Your task to perform on an android device: Search for "asus rog" on amazon.com, select the first entry, and add it to the cart. Image 0: 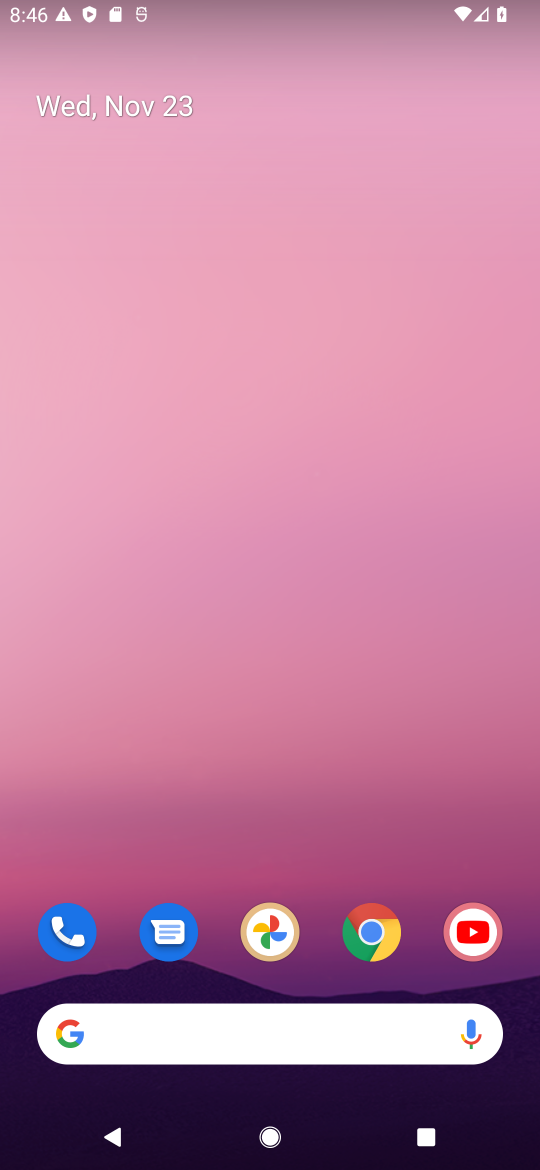
Step 0: click (377, 930)
Your task to perform on an android device: Search for "asus rog" on amazon.com, select the first entry, and add it to the cart. Image 1: 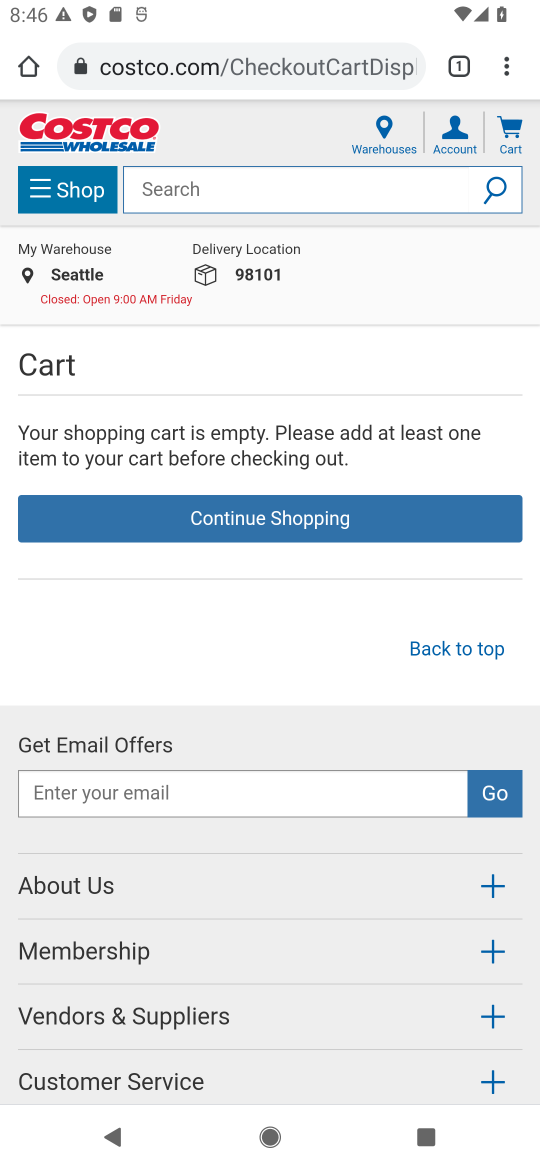
Step 1: click (236, 66)
Your task to perform on an android device: Search for "asus rog" on amazon.com, select the first entry, and add it to the cart. Image 2: 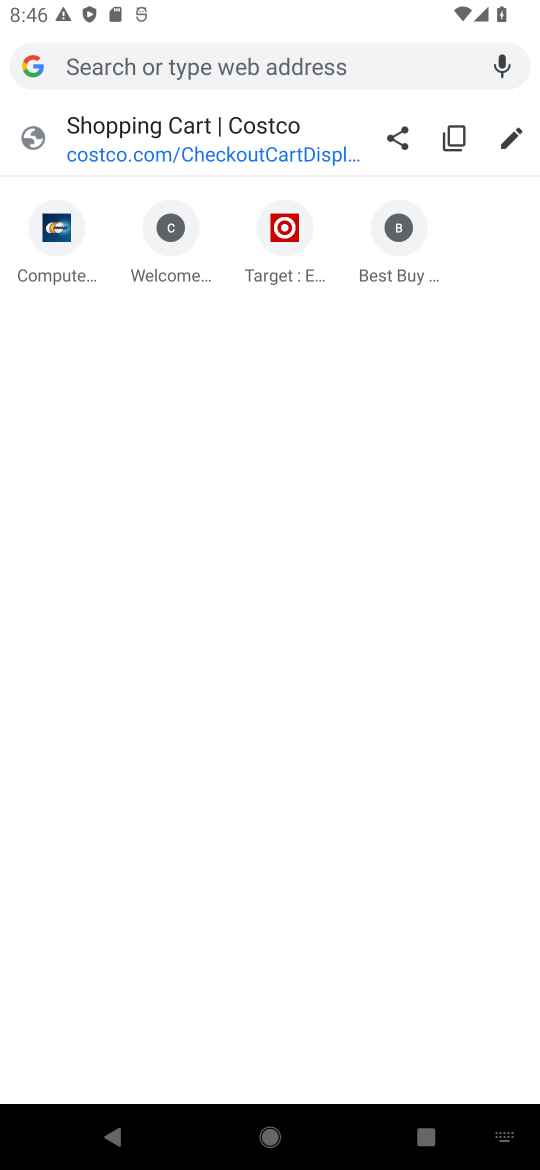
Step 2: type "amazon.com"
Your task to perform on an android device: Search for "asus rog" on amazon.com, select the first entry, and add it to the cart. Image 3: 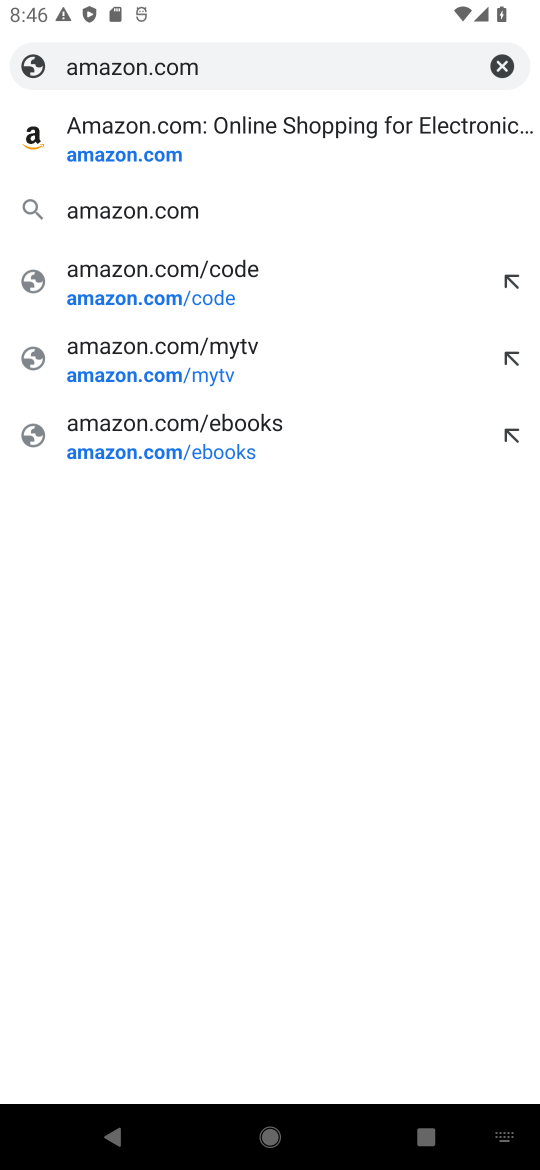
Step 3: click (232, 143)
Your task to perform on an android device: Search for "asus rog" on amazon.com, select the first entry, and add it to the cart. Image 4: 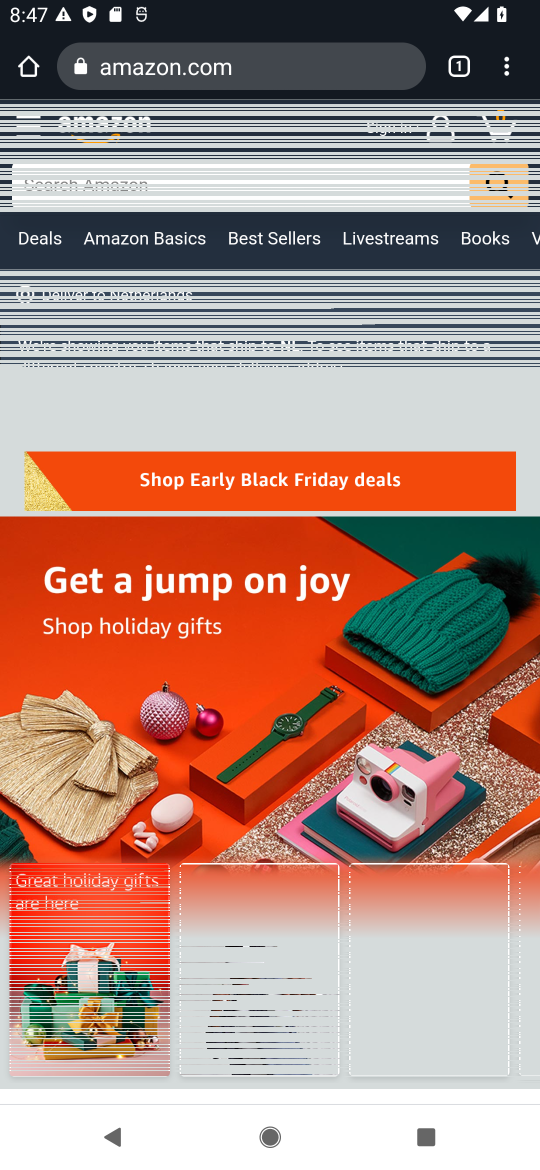
Step 4: click (176, 184)
Your task to perform on an android device: Search for "asus rog" on amazon.com, select the first entry, and add it to the cart. Image 5: 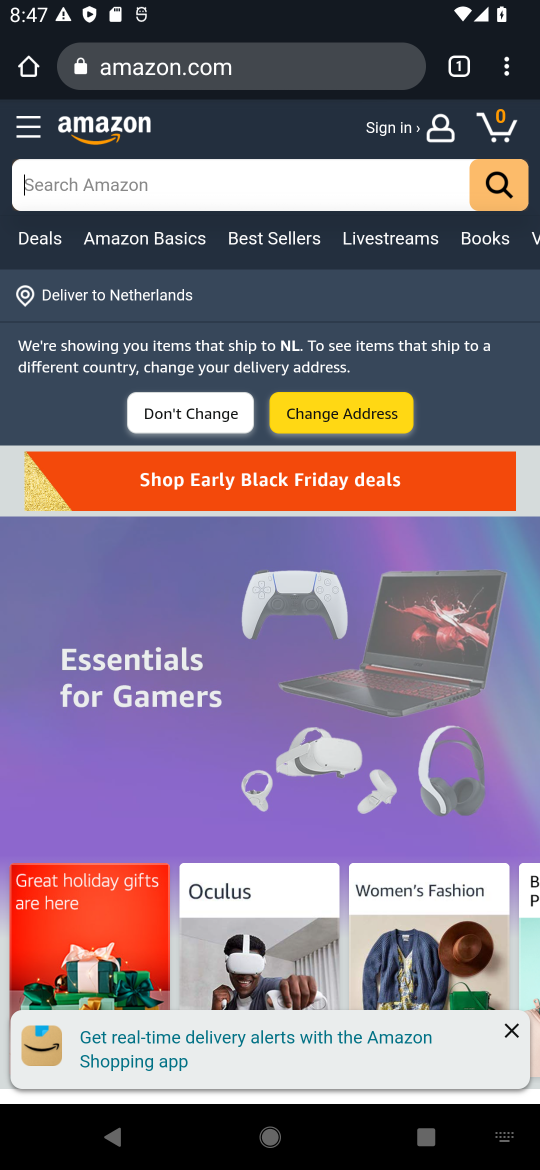
Step 5: type "asus rog"
Your task to perform on an android device: Search for "asus rog" on amazon.com, select the first entry, and add it to the cart. Image 6: 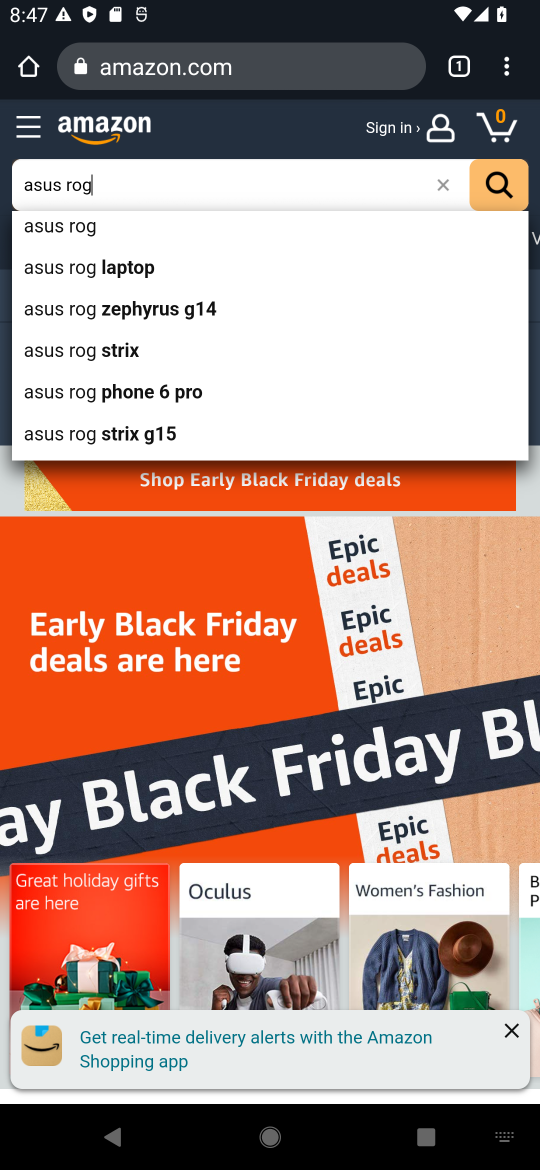
Step 6: click (86, 225)
Your task to perform on an android device: Search for "asus rog" on amazon.com, select the first entry, and add it to the cart. Image 7: 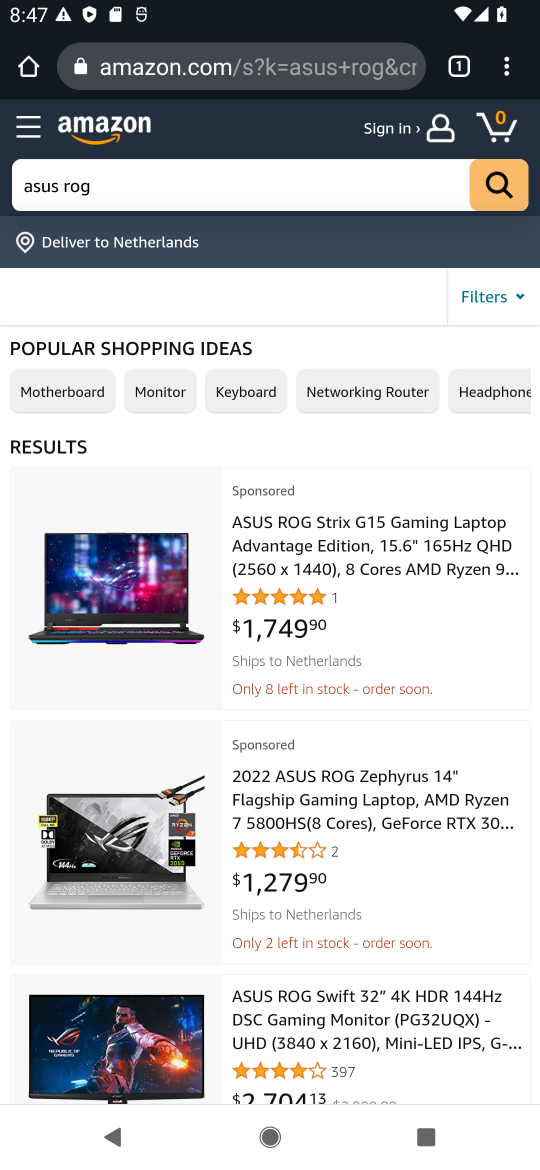
Step 7: click (167, 618)
Your task to perform on an android device: Search for "asus rog" on amazon.com, select the first entry, and add it to the cart. Image 8: 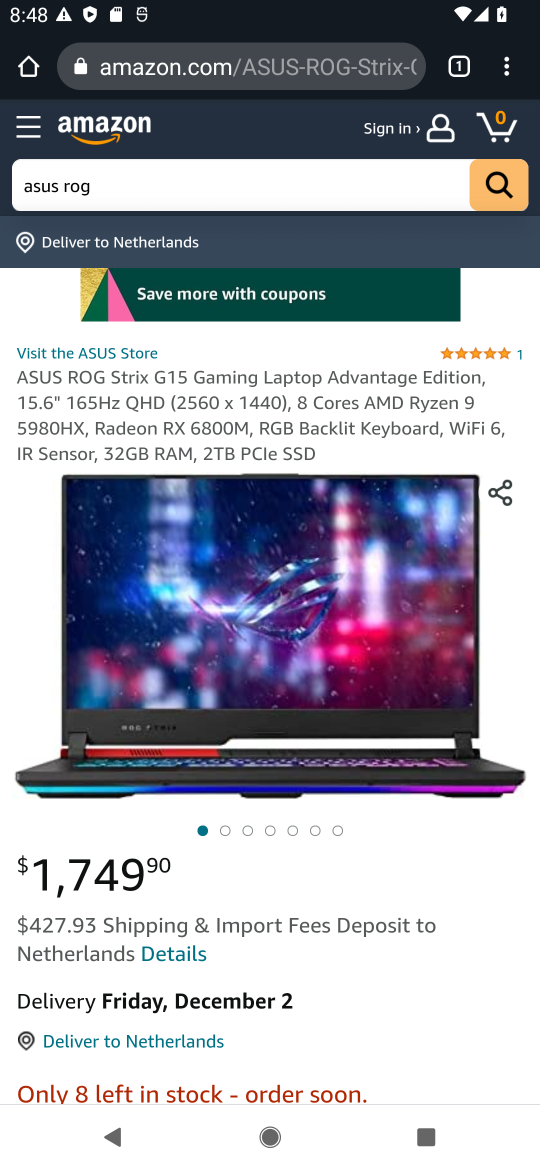
Step 8: drag from (271, 941) to (238, 491)
Your task to perform on an android device: Search for "asus rog" on amazon.com, select the first entry, and add it to the cart. Image 9: 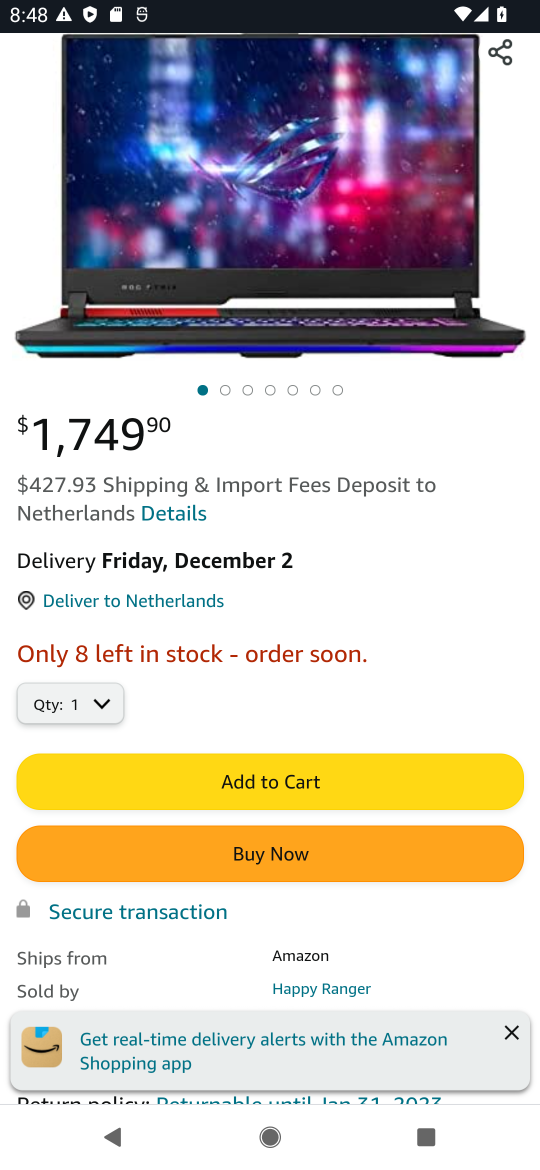
Step 9: click (313, 785)
Your task to perform on an android device: Search for "asus rog" on amazon.com, select the first entry, and add it to the cart. Image 10: 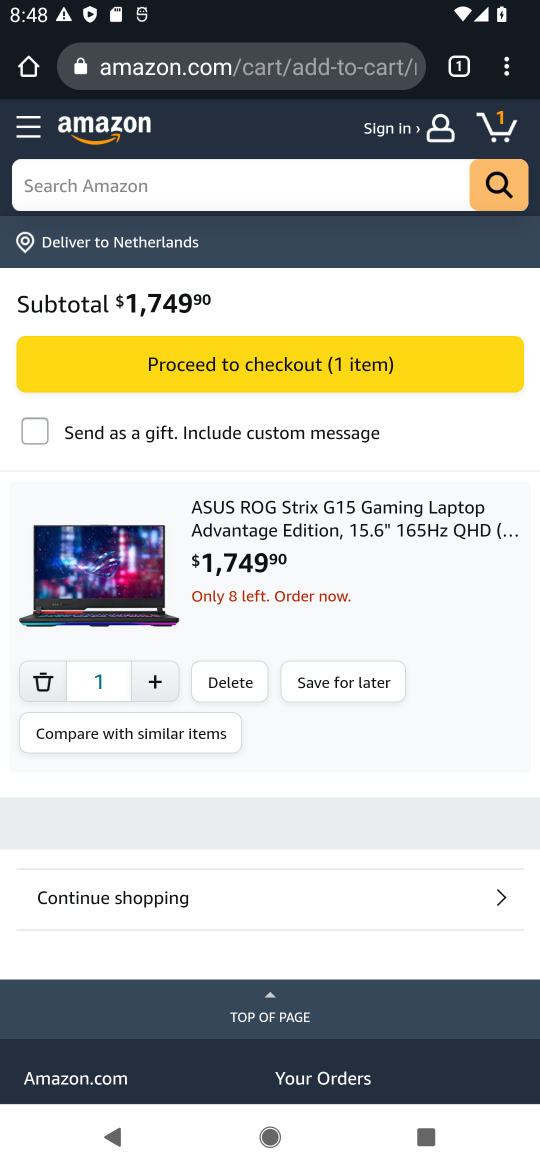
Step 10: task complete